Your task to perform on an android device: toggle improve location accuracy Image 0: 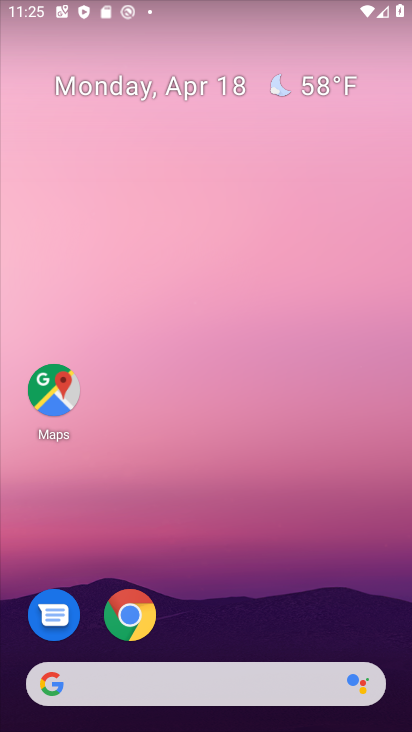
Step 0: drag from (358, 625) to (319, 78)
Your task to perform on an android device: toggle improve location accuracy Image 1: 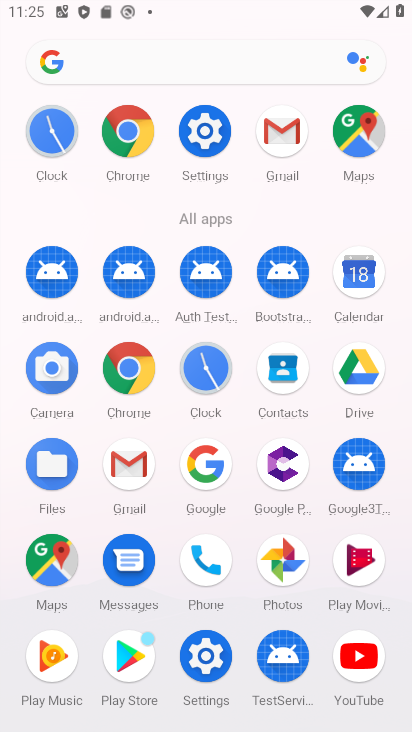
Step 1: click (200, 131)
Your task to perform on an android device: toggle improve location accuracy Image 2: 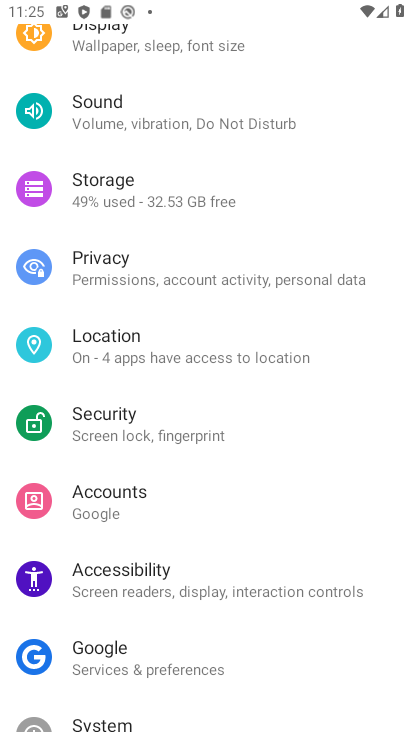
Step 2: click (262, 357)
Your task to perform on an android device: toggle improve location accuracy Image 3: 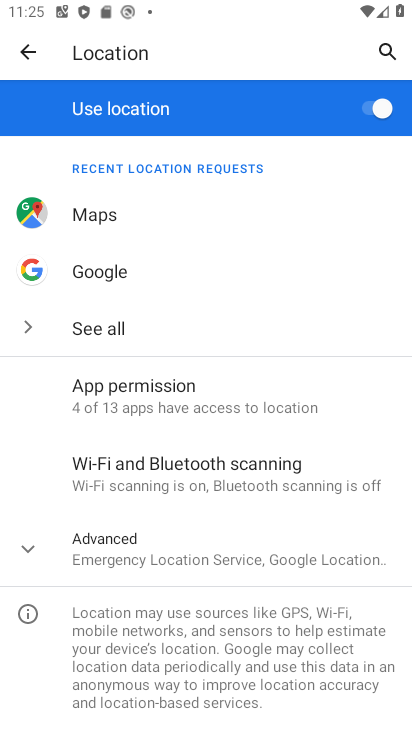
Step 3: click (246, 556)
Your task to perform on an android device: toggle improve location accuracy Image 4: 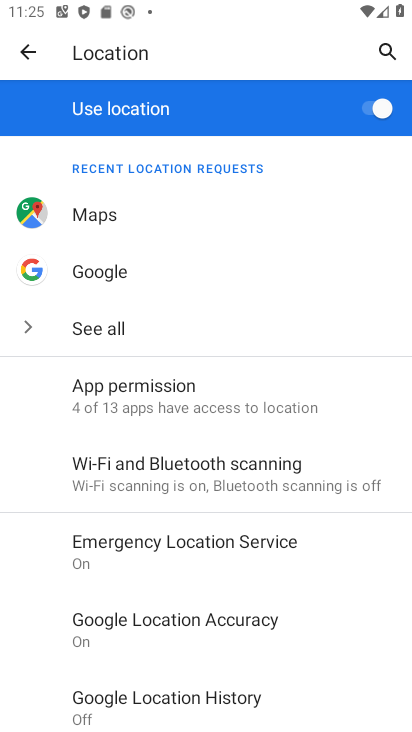
Step 4: drag from (336, 560) to (341, 371)
Your task to perform on an android device: toggle improve location accuracy Image 5: 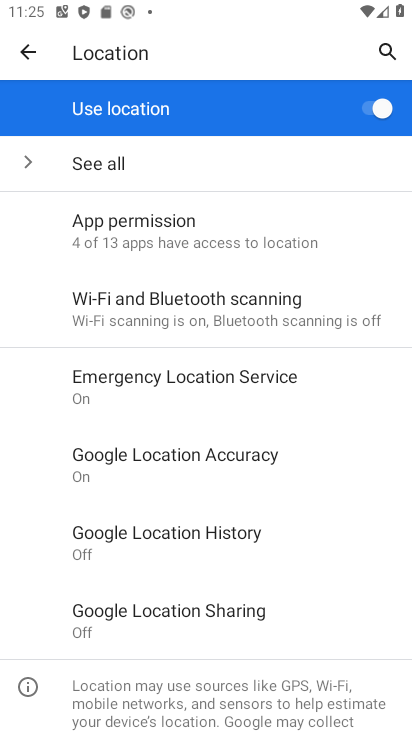
Step 5: drag from (341, 520) to (347, 386)
Your task to perform on an android device: toggle improve location accuracy Image 6: 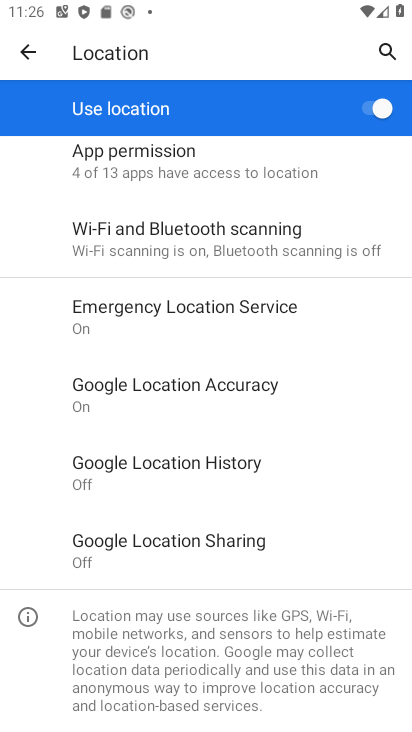
Step 6: click (253, 388)
Your task to perform on an android device: toggle improve location accuracy Image 7: 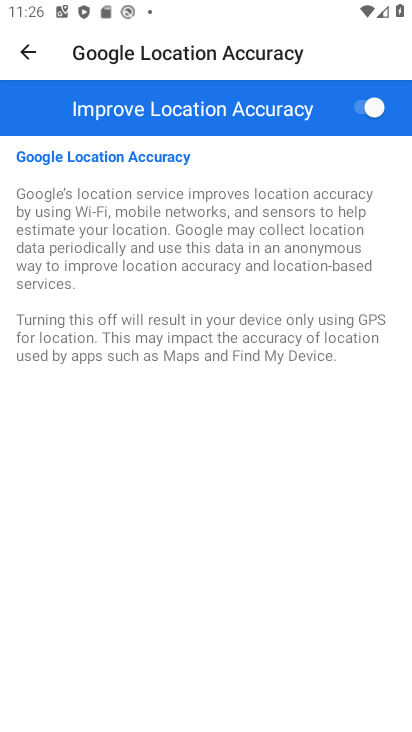
Step 7: click (361, 99)
Your task to perform on an android device: toggle improve location accuracy Image 8: 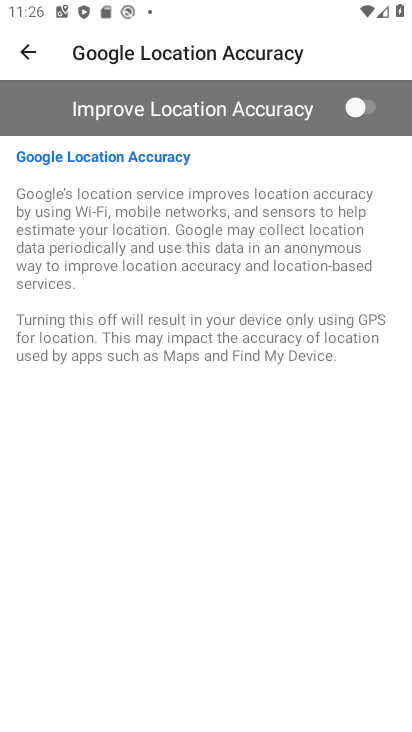
Step 8: task complete